Your task to perform on an android device: check data usage Image 0: 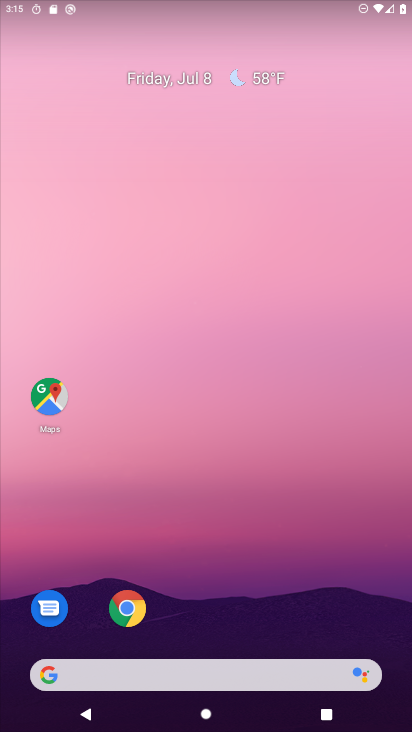
Step 0: drag from (229, 726) to (220, 98)
Your task to perform on an android device: check data usage Image 1: 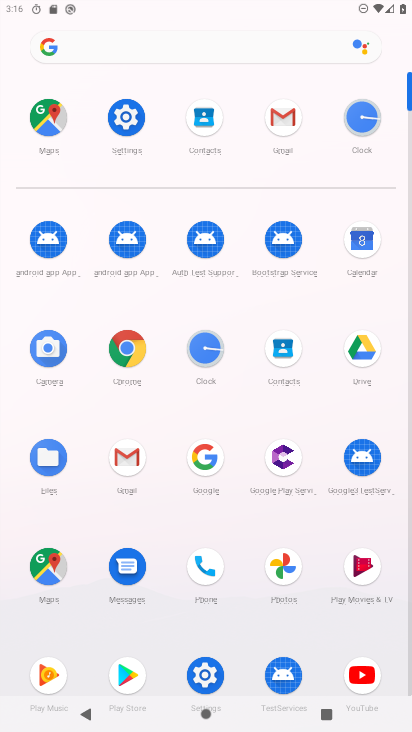
Step 1: click (126, 119)
Your task to perform on an android device: check data usage Image 2: 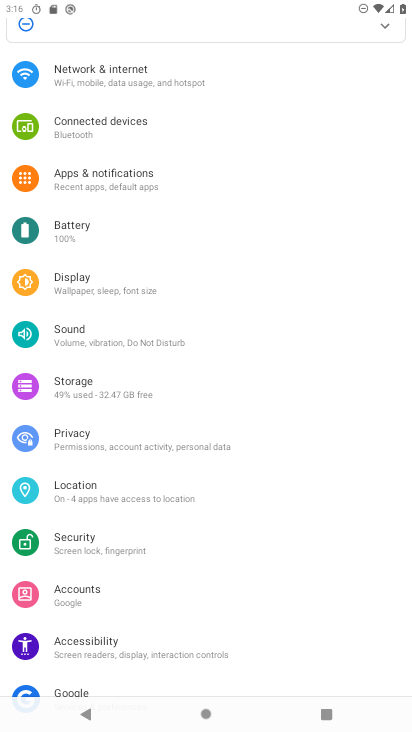
Step 2: click (90, 75)
Your task to perform on an android device: check data usage Image 3: 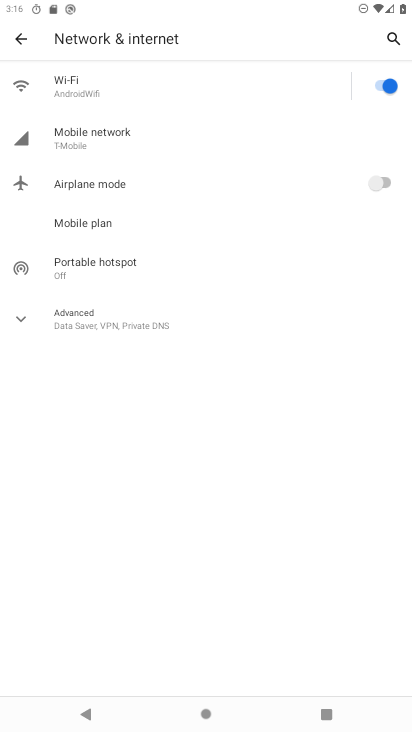
Step 3: click (95, 133)
Your task to perform on an android device: check data usage Image 4: 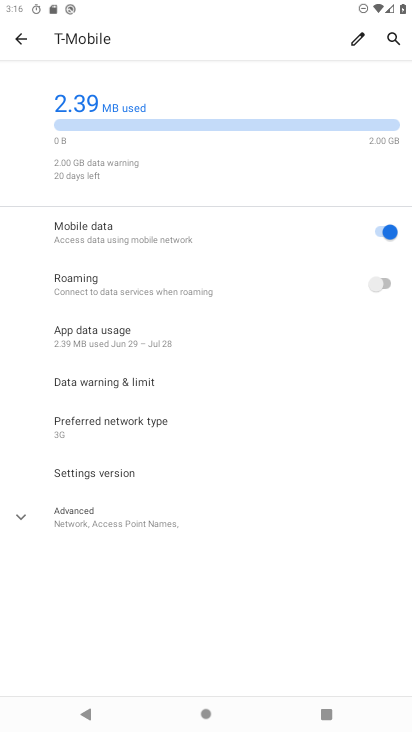
Step 4: click (103, 329)
Your task to perform on an android device: check data usage Image 5: 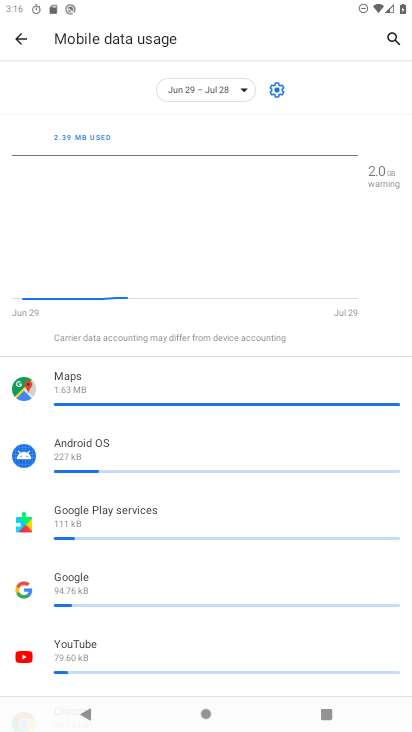
Step 5: task complete